Your task to perform on an android device: Is it going to rain today? Image 0: 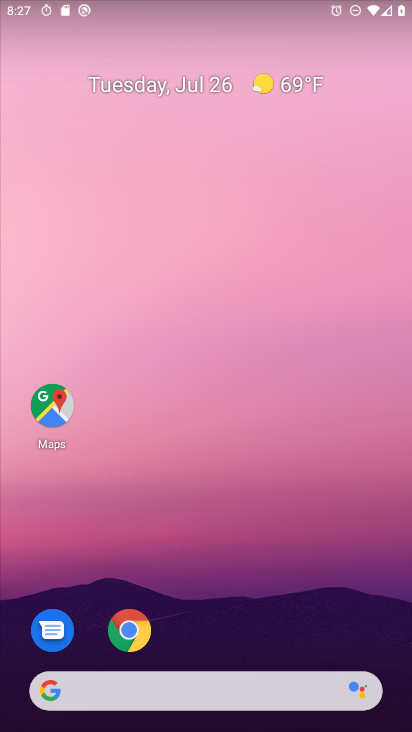
Step 0: drag from (245, 626) to (253, 173)
Your task to perform on an android device: Is it going to rain today? Image 1: 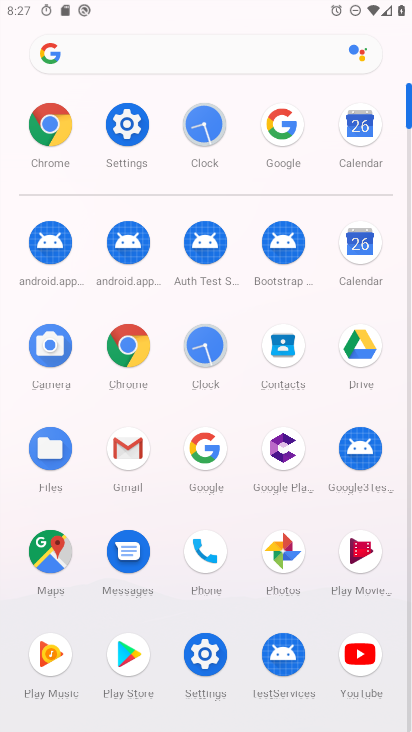
Step 1: click (121, 359)
Your task to perform on an android device: Is it going to rain today? Image 2: 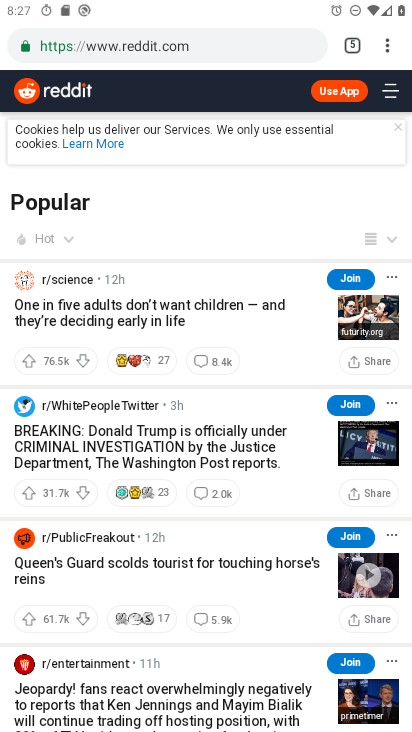
Step 2: click (342, 52)
Your task to perform on an android device: Is it going to rain today? Image 3: 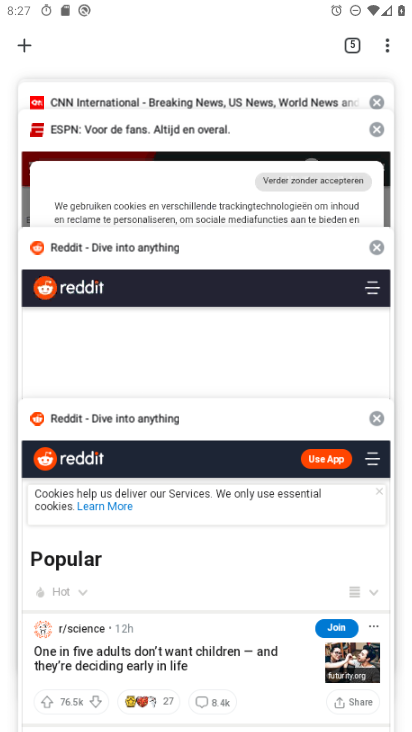
Step 3: click (23, 46)
Your task to perform on an android device: Is it going to rain today? Image 4: 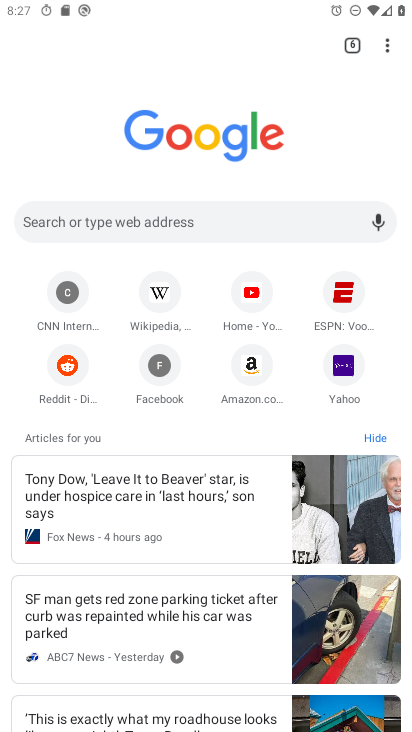
Step 4: click (139, 216)
Your task to perform on an android device: Is it going to rain today? Image 5: 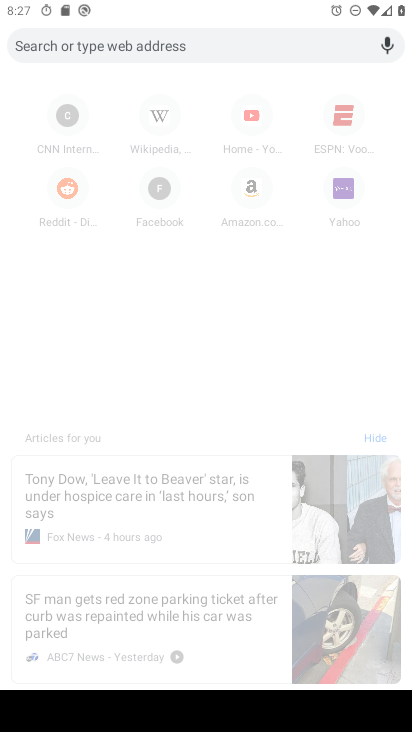
Step 5: type "Is it going to rain today?"
Your task to perform on an android device: Is it going to rain today? Image 6: 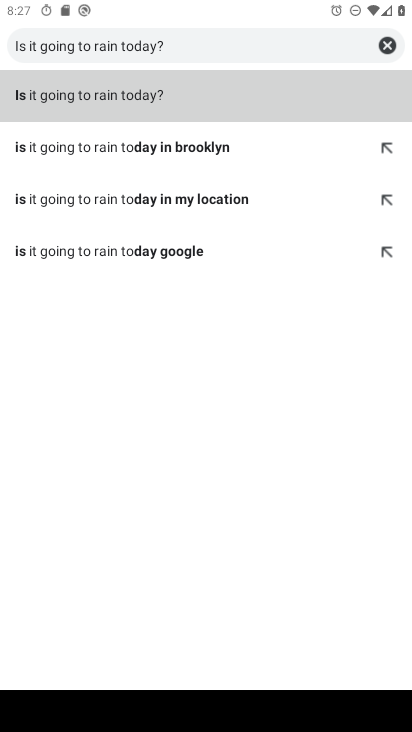
Step 6: click (133, 96)
Your task to perform on an android device: Is it going to rain today? Image 7: 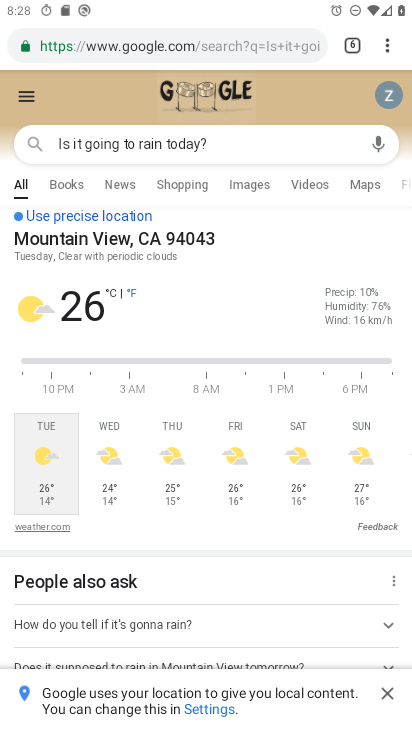
Step 7: task complete